Your task to perform on an android device: change your default location settings in chrome Image 0: 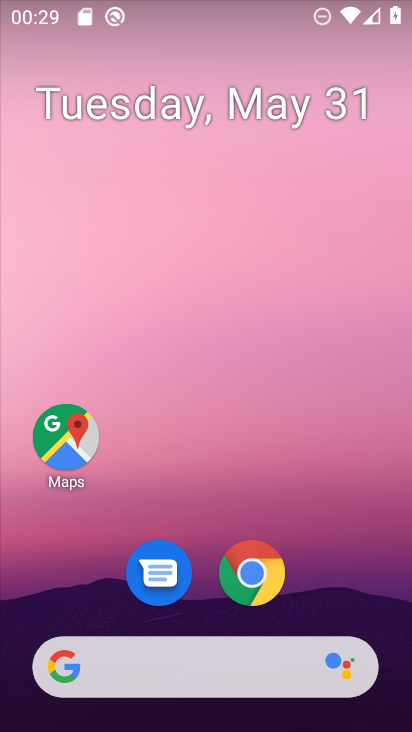
Step 0: click (2, 37)
Your task to perform on an android device: change your default location settings in chrome Image 1: 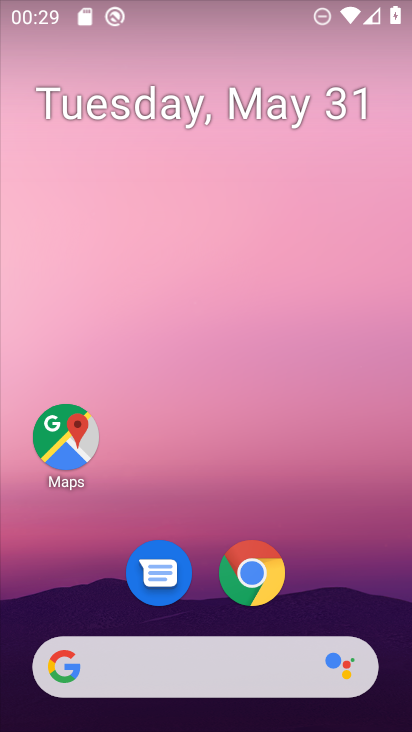
Step 1: drag from (295, 546) to (378, 22)
Your task to perform on an android device: change your default location settings in chrome Image 2: 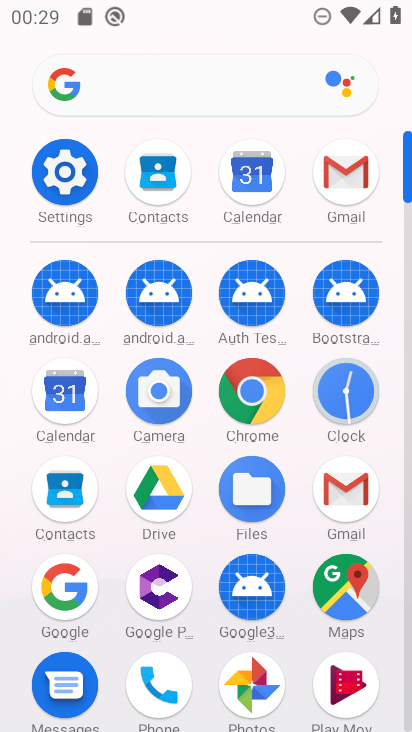
Step 2: click (286, 380)
Your task to perform on an android device: change your default location settings in chrome Image 3: 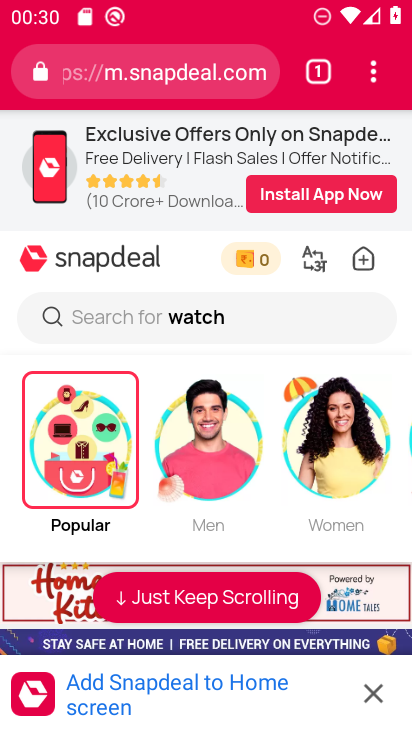
Step 3: click (370, 77)
Your task to perform on an android device: change your default location settings in chrome Image 4: 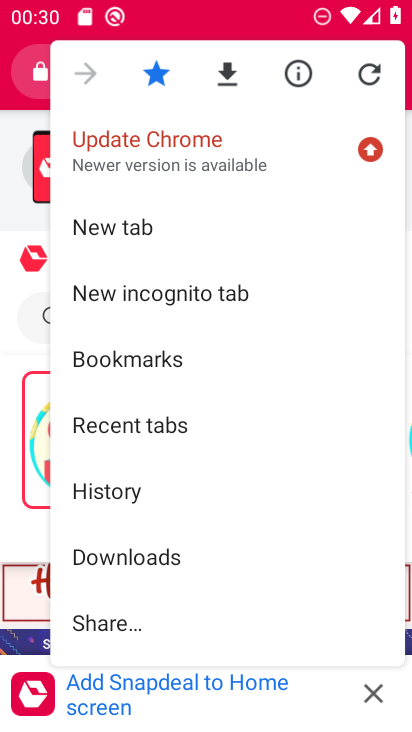
Step 4: drag from (275, 622) to (218, 7)
Your task to perform on an android device: change your default location settings in chrome Image 5: 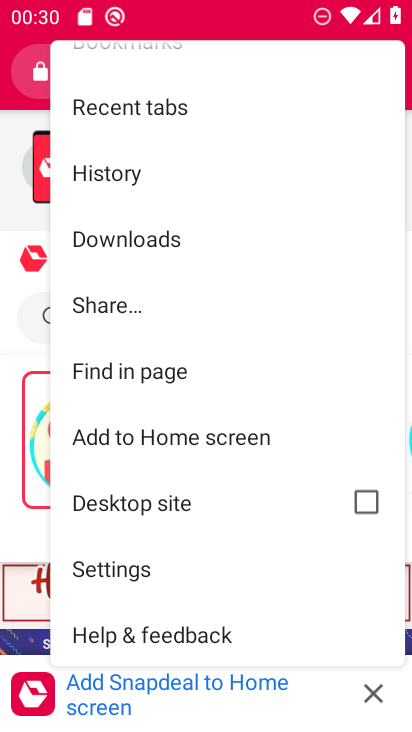
Step 5: click (153, 570)
Your task to perform on an android device: change your default location settings in chrome Image 6: 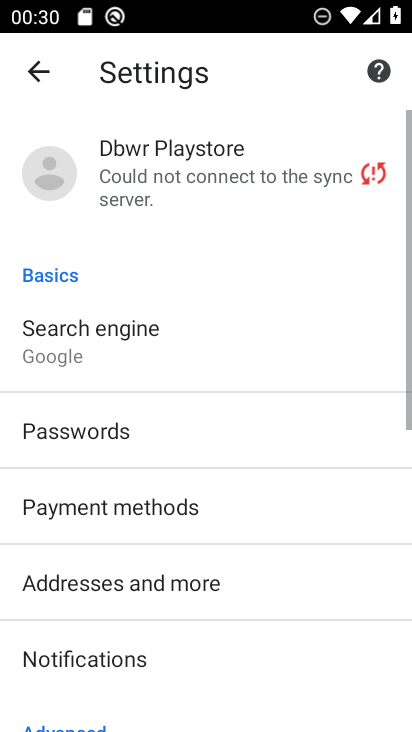
Step 6: drag from (221, 584) to (302, 98)
Your task to perform on an android device: change your default location settings in chrome Image 7: 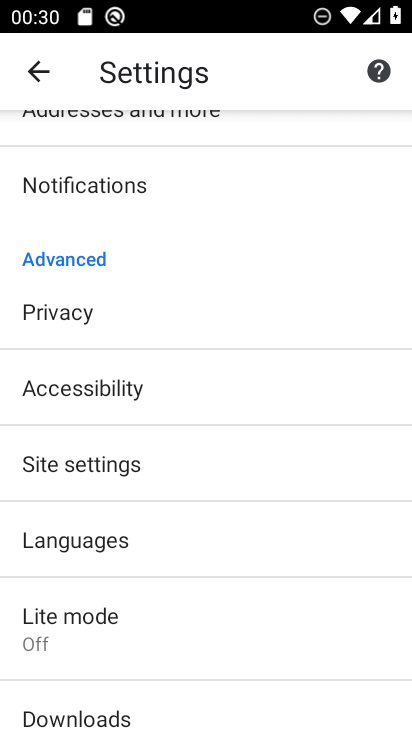
Step 7: click (146, 459)
Your task to perform on an android device: change your default location settings in chrome Image 8: 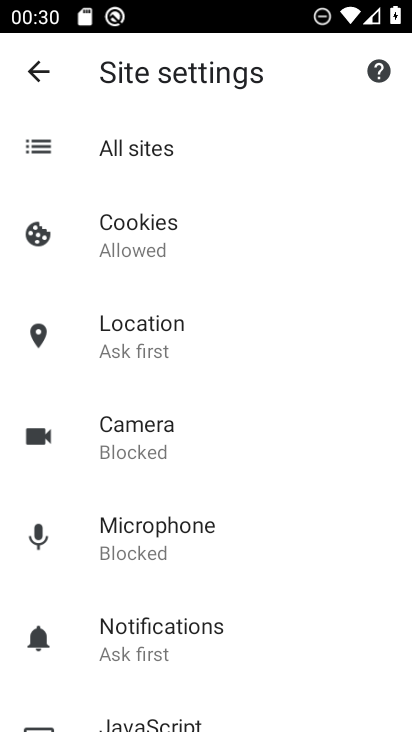
Step 8: click (190, 346)
Your task to perform on an android device: change your default location settings in chrome Image 9: 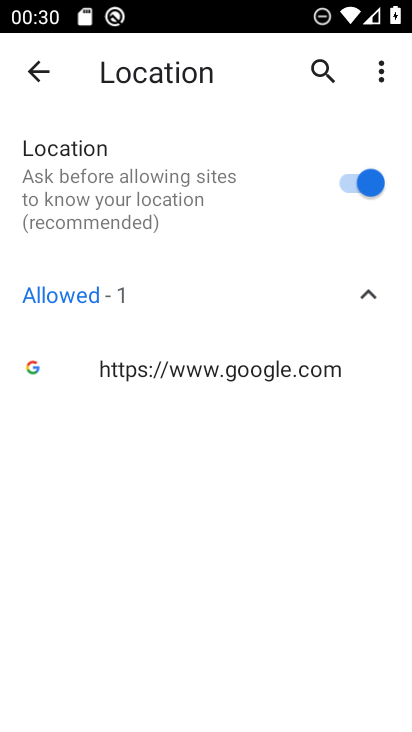
Step 9: task complete